Your task to perform on an android device: toggle wifi Image 0: 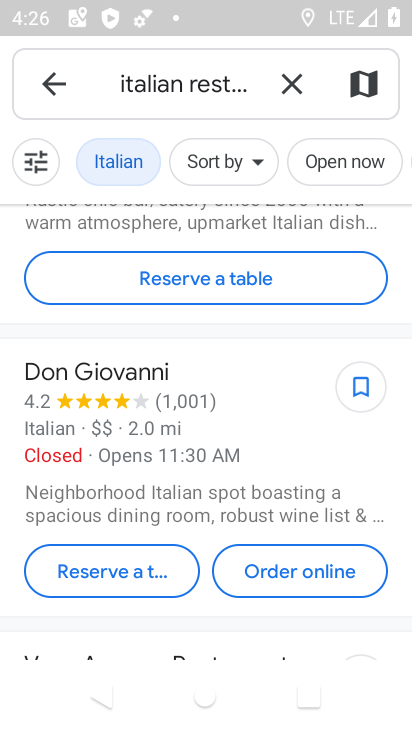
Step 0: drag from (178, 601) to (272, 57)
Your task to perform on an android device: toggle wifi Image 1: 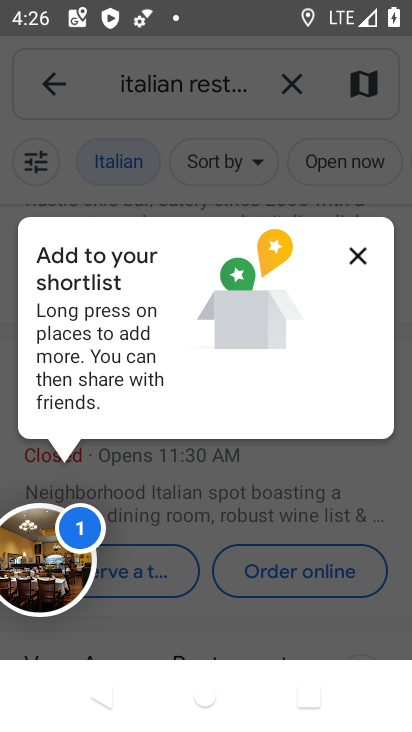
Step 1: press home button
Your task to perform on an android device: toggle wifi Image 2: 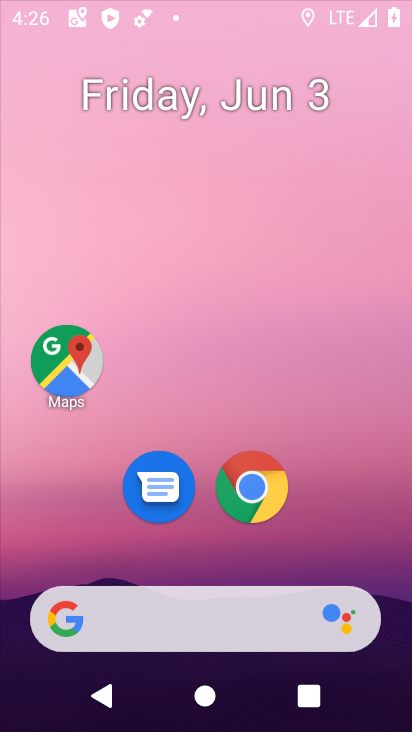
Step 2: drag from (221, 601) to (274, 155)
Your task to perform on an android device: toggle wifi Image 3: 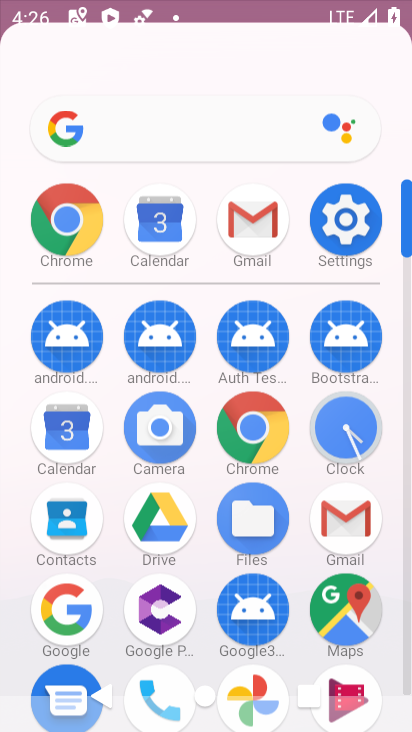
Step 3: click (339, 221)
Your task to perform on an android device: toggle wifi Image 4: 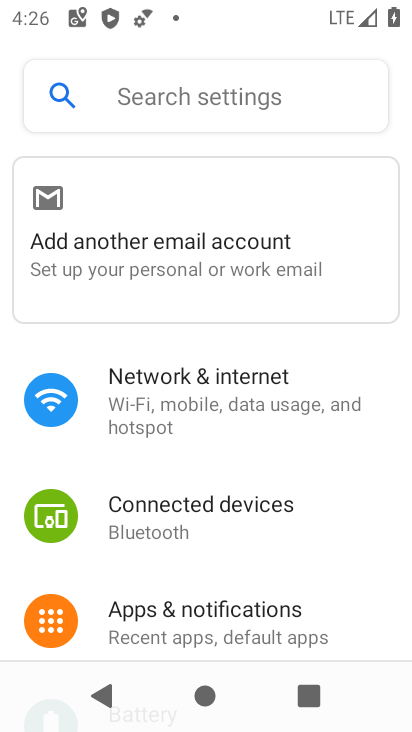
Step 4: click (209, 104)
Your task to perform on an android device: toggle wifi Image 5: 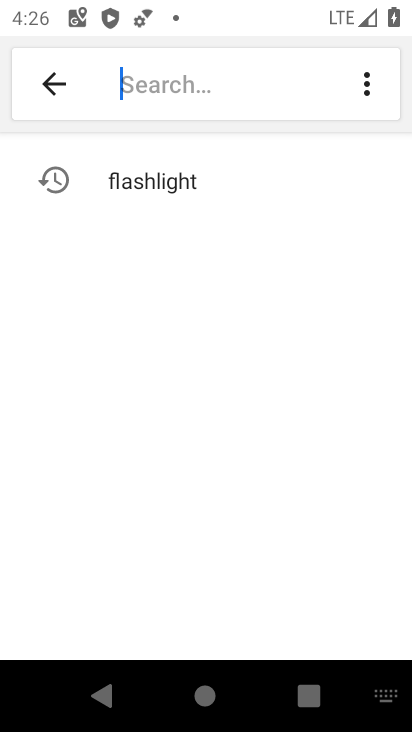
Step 5: press home button
Your task to perform on an android device: toggle wifi Image 6: 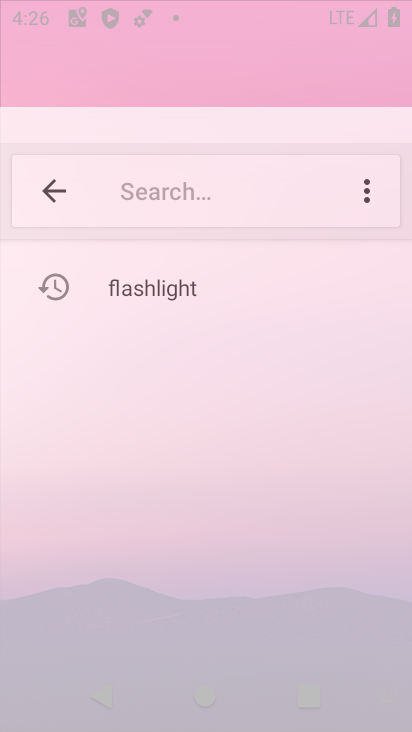
Step 6: drag from (250, 517) to (333, 96)
Your task to perform on an android device: toggle wifi Image 7: 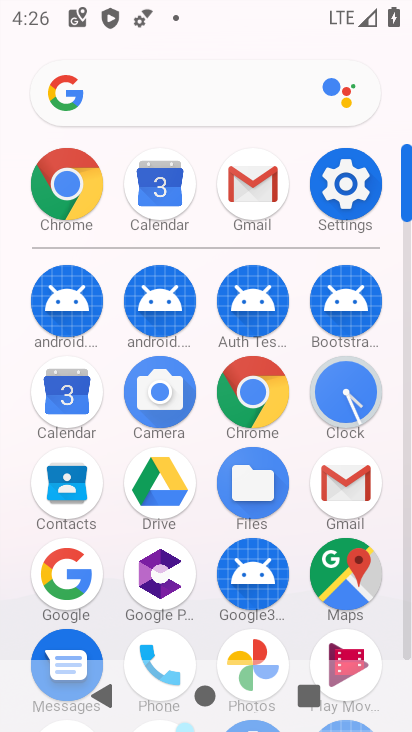
Step 7: drag from (196, 593) to (224, 301)
Your task to perform on an android device: toggle wifi Image 8: 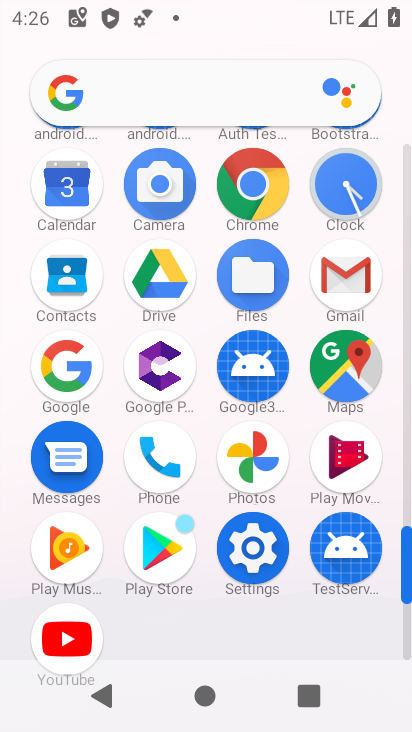
Step 8: click (263, 554)
Your task to perform on an android device: toggle wifi Image 9: 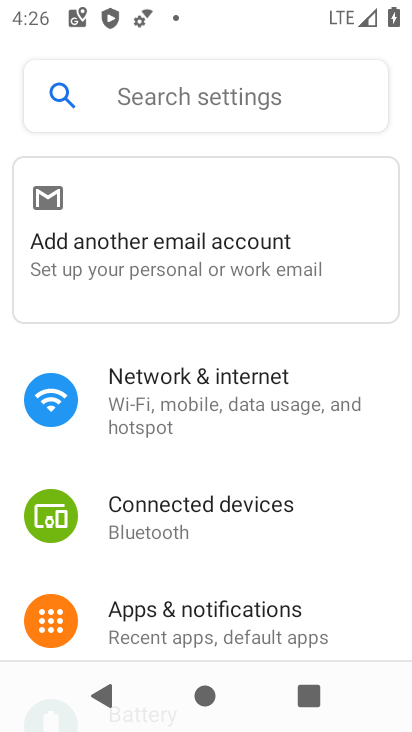
Step 9: click (188, 412)
Your task to perform on an android device: toggle wifi Image 10: 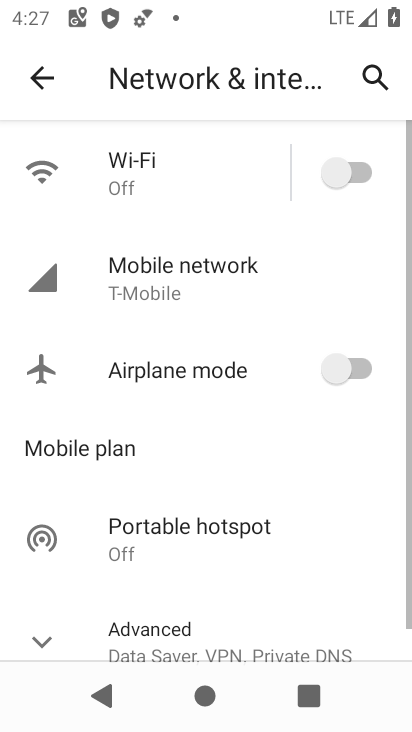
Step 10: click (223, 168)
Your task to perform on an android device: toggle wifi Image 11: 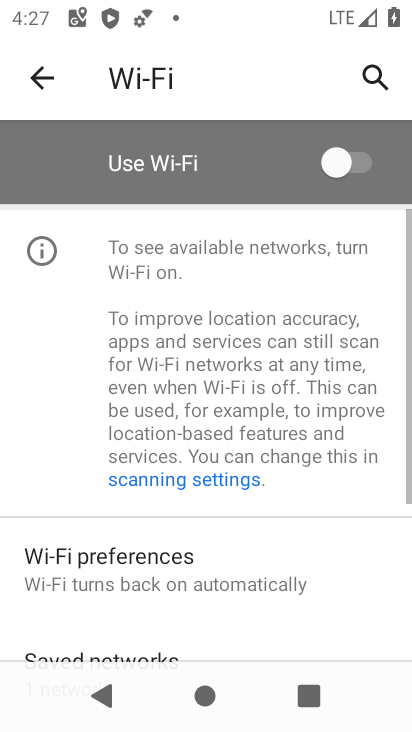
Step 11: click (348, 168)
Your task to perform on an android device: toggle wifi Image 12: 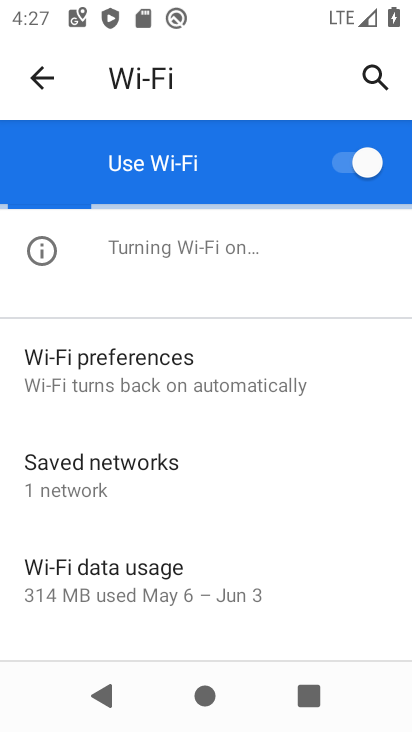
Step 12: task complete